Your task to perform on an android device: turn on priority inbox in the gmail app Image 0: 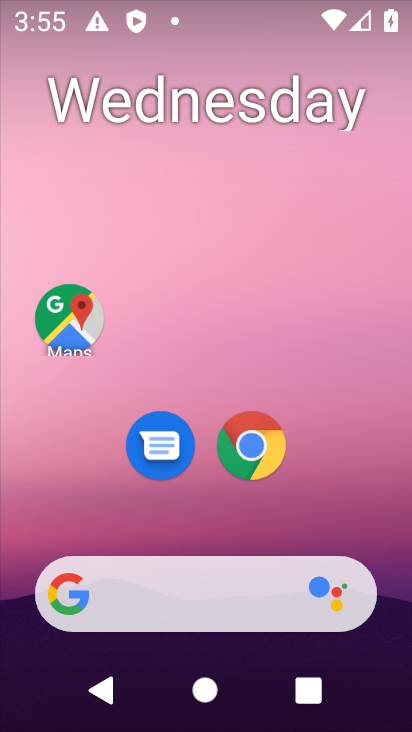
Step 0: drag from (184, 485) to (205, 1)
Your task to perform on an android device: turn on priority inbox in the gmail app Image 1: 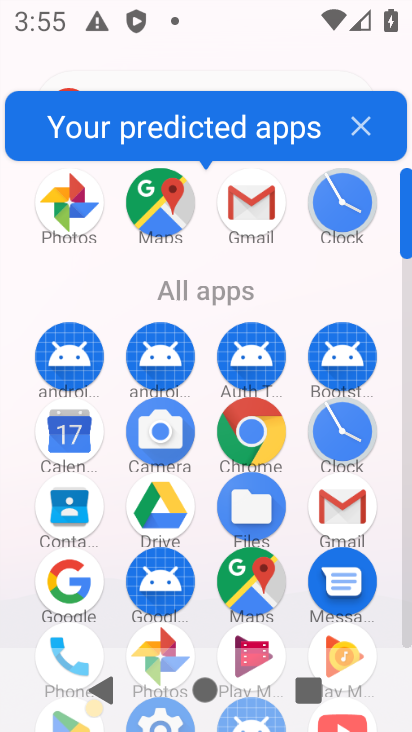
Step 1: click (252, 191)
Your task to perform on an android device: turn on priority inbox in the gmail app Image 2: 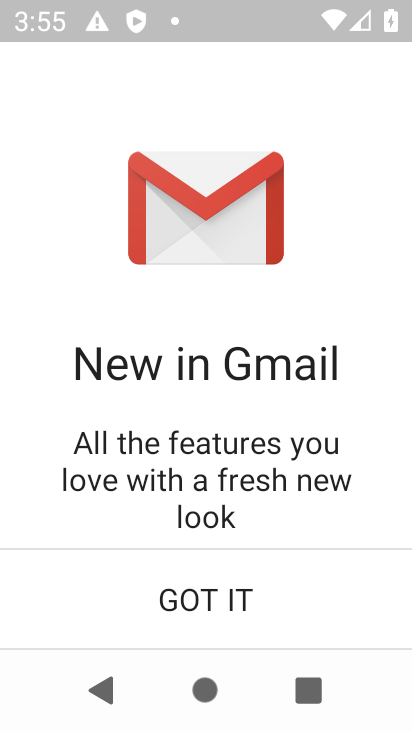
Step 2: click (233, 577)
Your task to perform on an android device: turn on priority inbox in the gmail app Image 3: 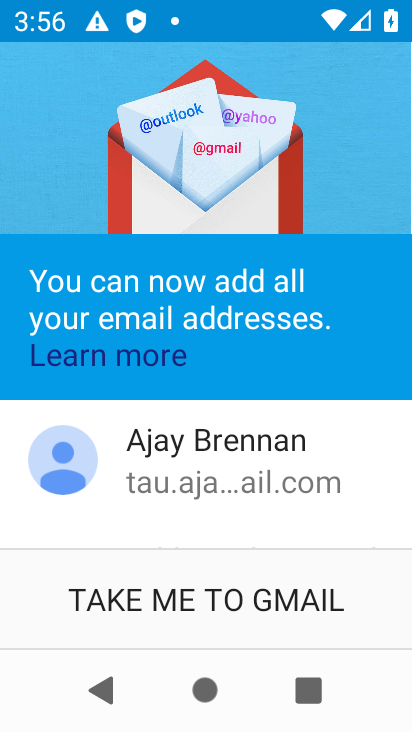
Step 3: click (264, 598)
Your task to perform on an android device: turn on priority inbox in the gmail app Image 4: 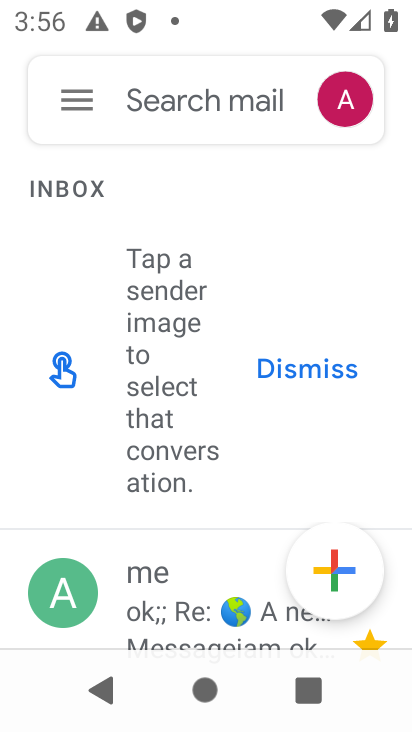
Step 4: click (61, 93)
Your task to perform on an android device: turn on priority inbox in the gmail app Image 5: 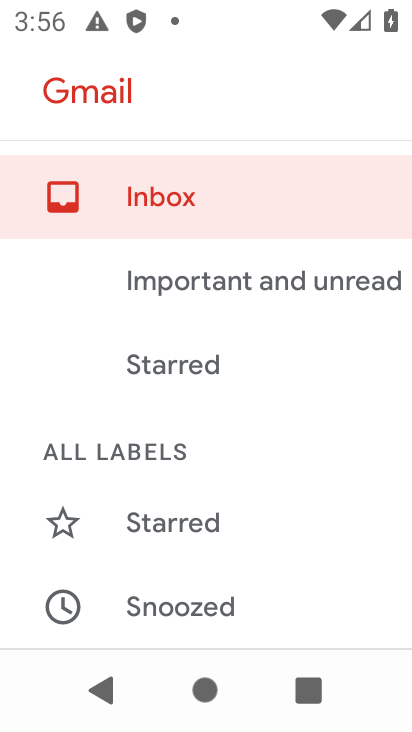
Step 5: drag from (169, 562) to (264, 0)
Your task to perform on an android device: turn on priority inbox in the gmail app Image 6: 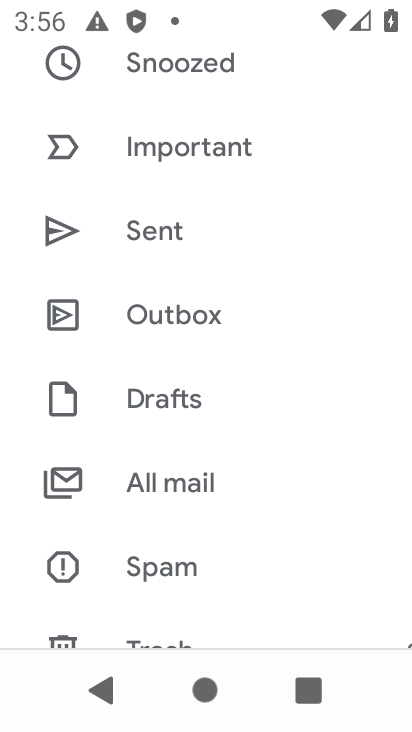
Step 6: drag from (235, 42) to (257, 5)
Your task to perform on an android device: turn on priority inbox in the gmail app Image 7: 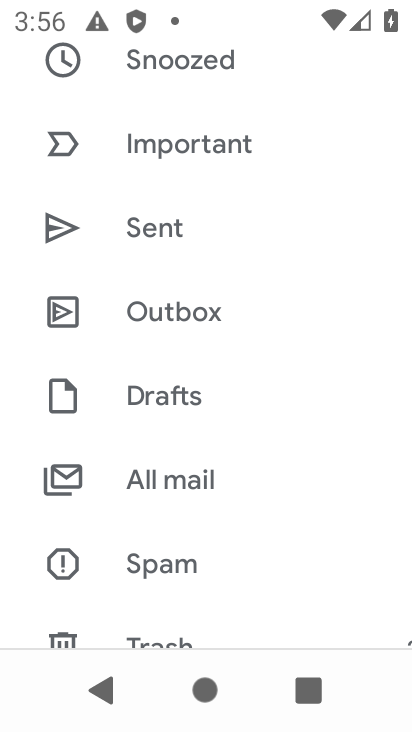
Step 7: drag from (161, 529) to (222, 14)
Your task to perform on an android device: turn on priority inbox in the gmail app Image 8: 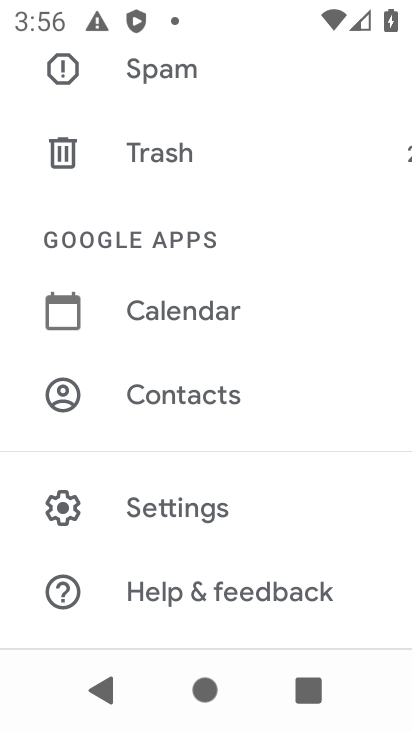
Step 8: click (158, 508)
Your task to perform on an android device: turn on priority inbox in the gmail app Image 9: 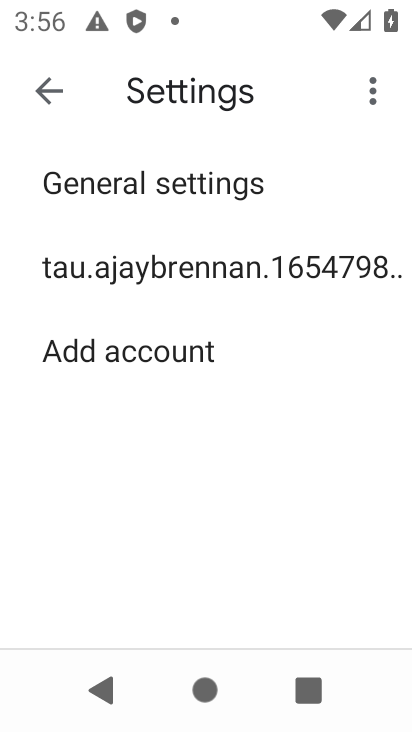
Step 9: click (231, 280)
Your task to perform on an android device: turn on priority inbox in the gmail app Image 10: 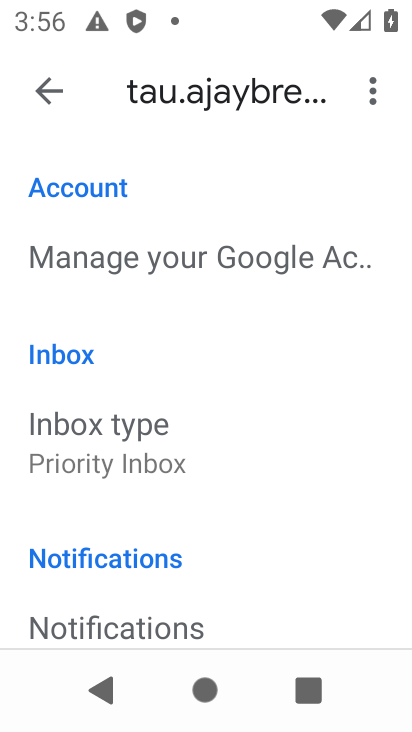
Step 10: click (187, 461)
Your task to perform on an android device: turn on priority inbox in the gmail app Image 11: 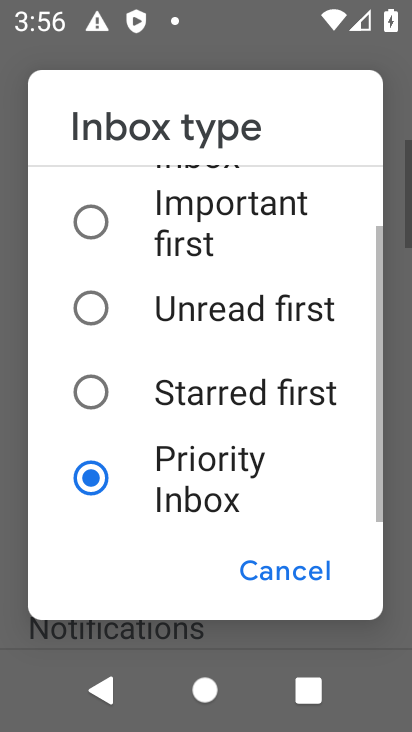
Step 11: task complete